Your task to perform on an android device: change keyboard looks Image 0: 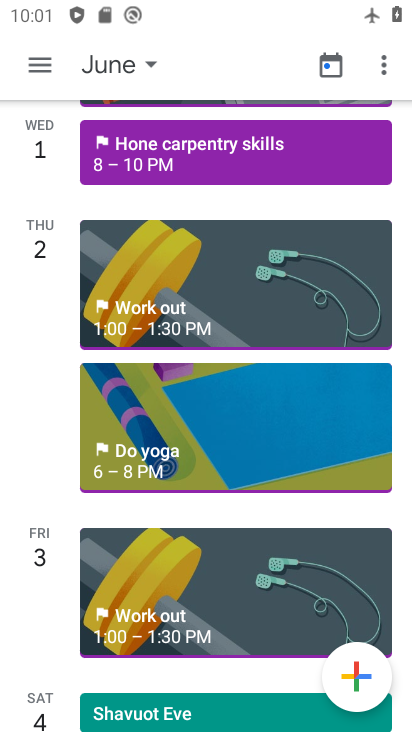
Step 0: drag from (343, 505) to (284, 108)
Your task to perform on an android device: change keyboard looks Image 1: 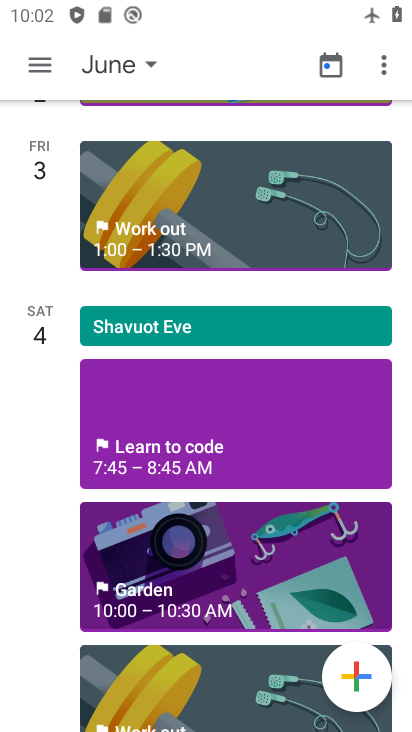
Step 1: press back button
Your task to perform on an android device: change keyboard looks Image 2: 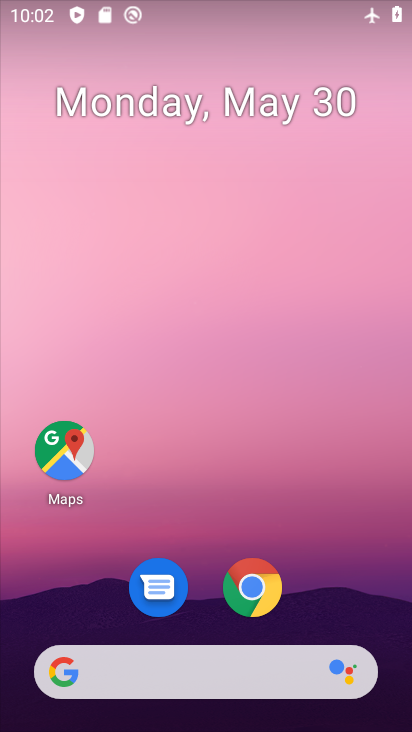
Step 2: drag from (334, 555) to (253, 4)
Your task to perform on an android device: change keyboard looks Image 3: 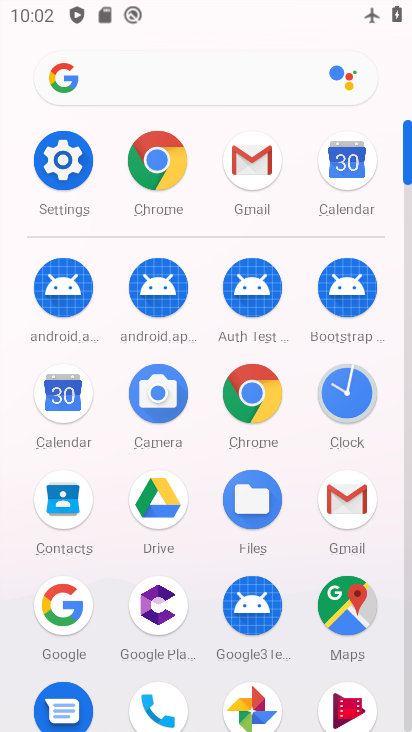
Step 3: click (60, 156)
Your task to perform on an android device: change keyboard looks Image 4: 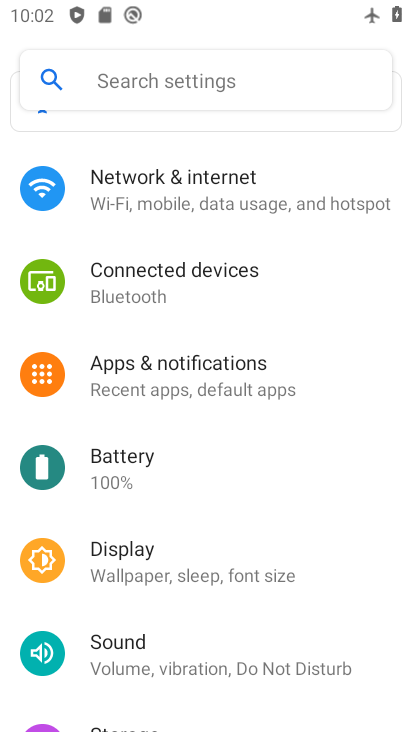
Step 4: drag from (283, 587) to (272, 149)
Your task to perform on an android device: change keyboard looks Image 5: 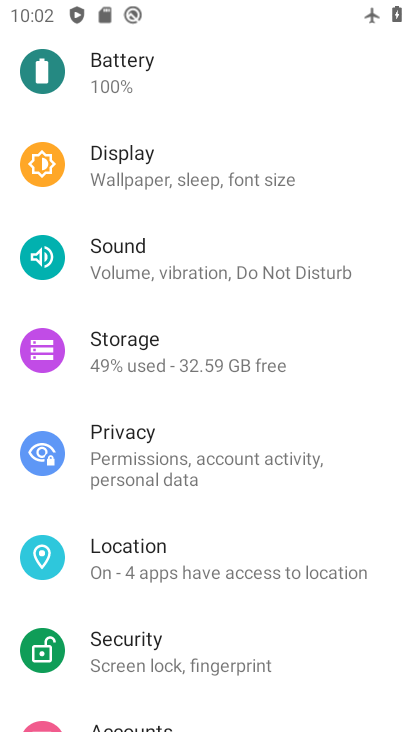
Step 5: drag from (243, 621) to (281, 94)
Your task to perform on an android device: change keyboard looks Image 6: 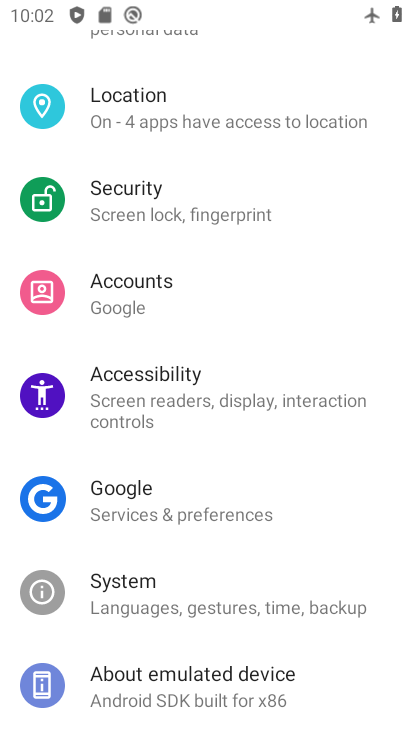
Step 6: click (208, 592)
Your task to perform on an android device: change keyboard looks Image 7: 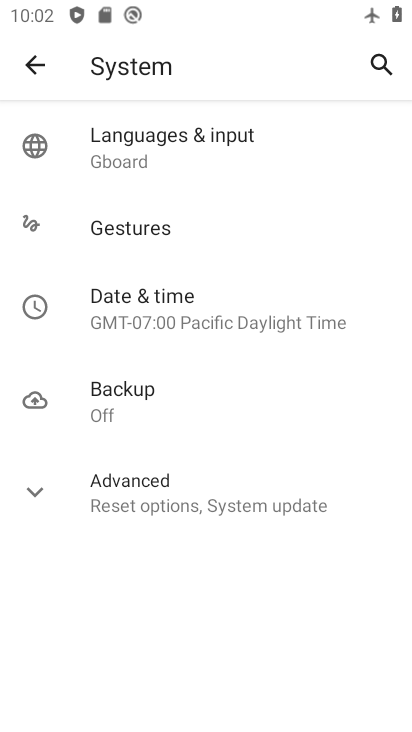
Step 7: click (174, 513)
Your task to perform on an android device: change keyboard looks Image 8: 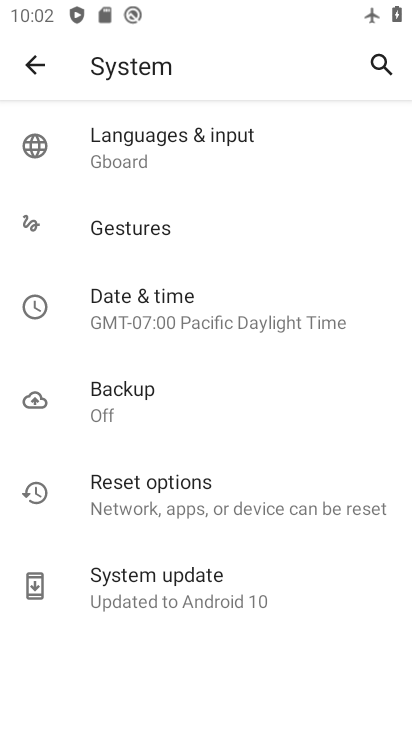
Step 8: click (159, 149)
Your task to perform on an android device: change keyboard looks Image 9: 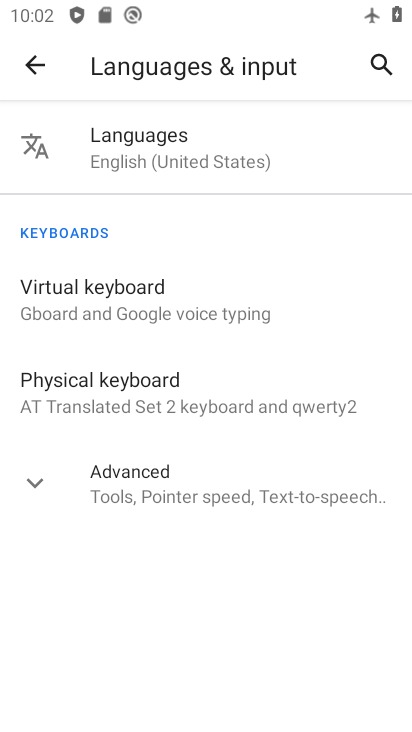
Step 9: click (38, 468)
Your task to perform on an android device: change keyboard looks Image 10: 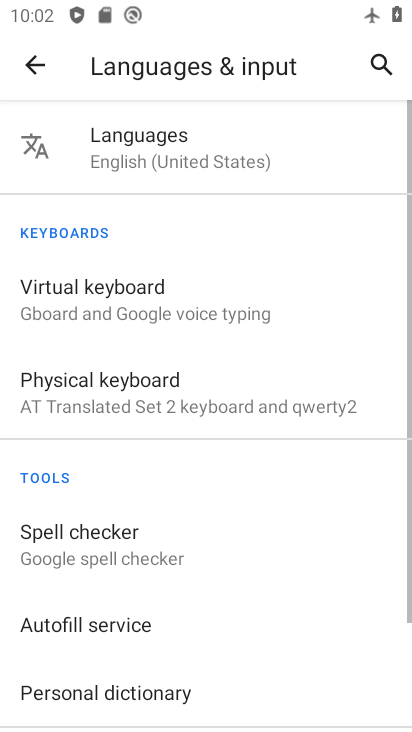
Step 10: click (129, 323)
Your task to perform on an android device: change keyboard looks Image 11: 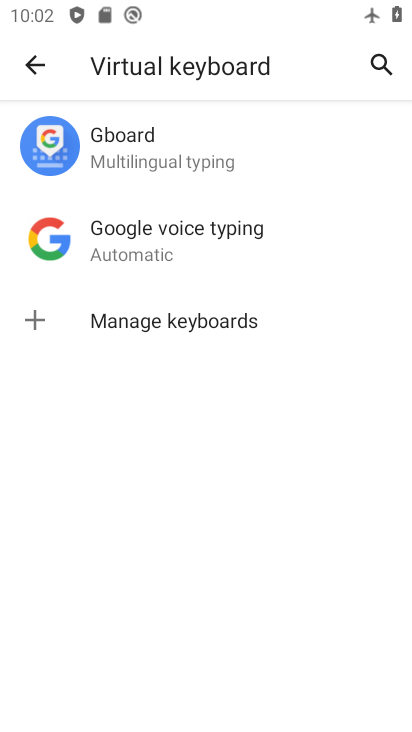
Step 11: click (191, 142)
Your task to perform on an android device: change keyboard looks Image 12: 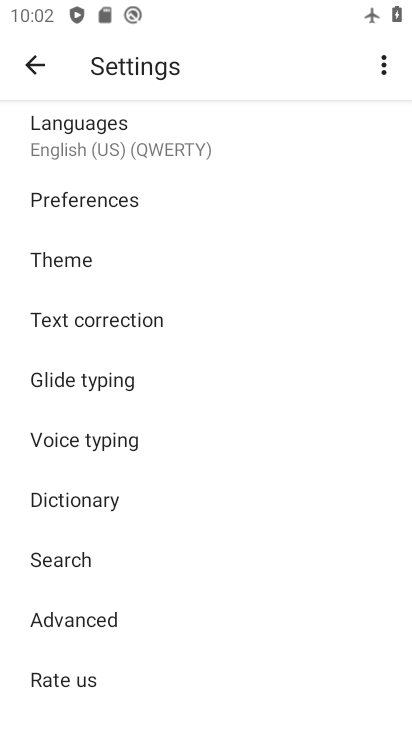
Step 12: click (94, 252)
Your task to perform on an android device: change keyboard looks Image 13: 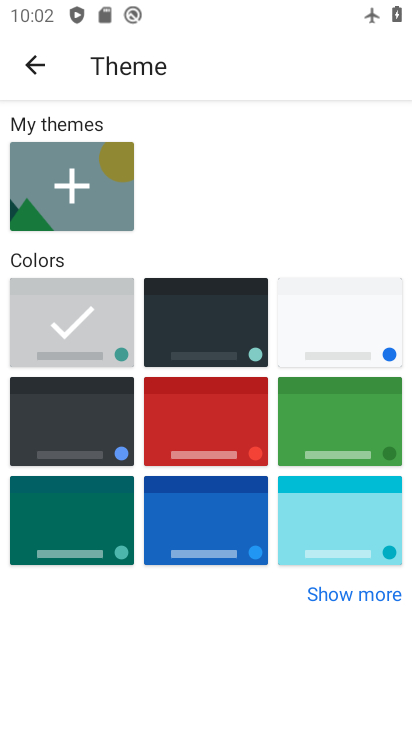
Step 13: click (284, 319)
Your task to perform on an android device: change keyboard looks Image 14: 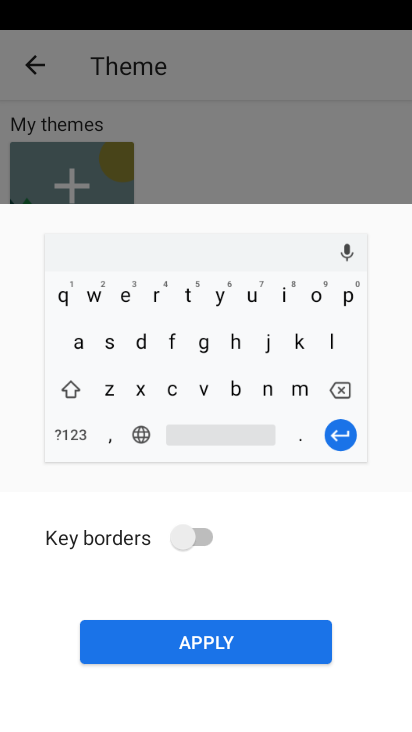
Step 14: click (205, 630)
Your task to perform on an android device: change keyboard looks Image 15: 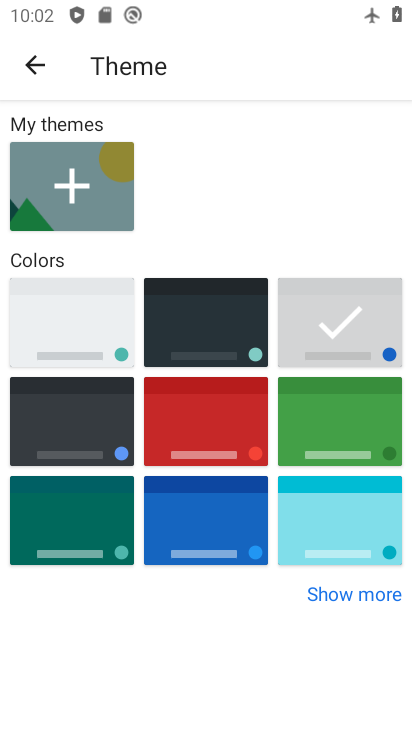
Step 15: task complete